Your task to perform on an android device: make emails show in primary in the gmail app Image 0: 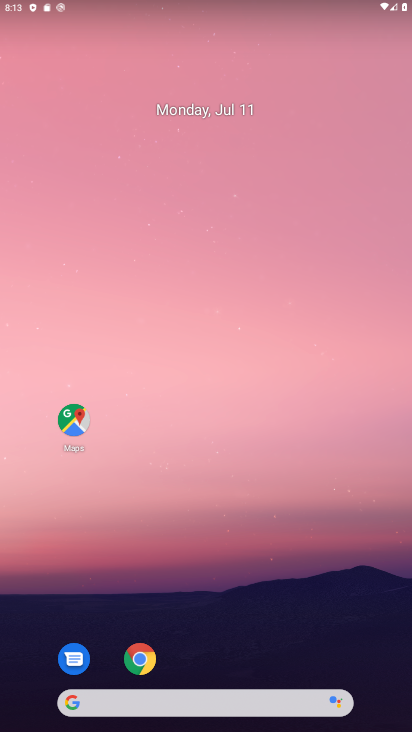
Step 0: drag from (201, 633) to (192, 257)
Your task to perform on an android device: make emails show in primary in the gmail app Image 1: 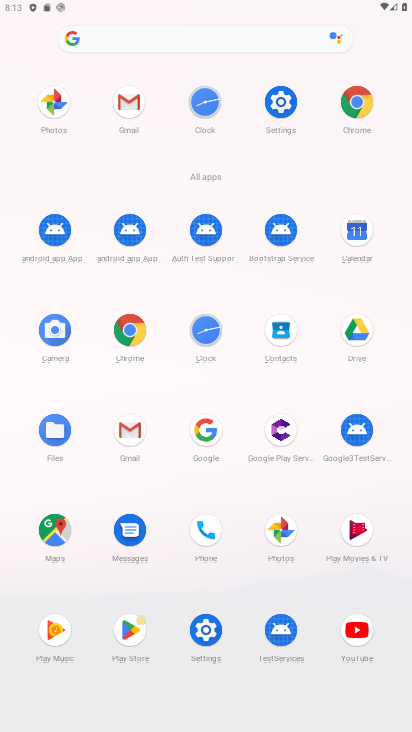
Step 1: click (127, 117)
Your task to perform on an android device: make emails show in primary in the gmail app Image 2: 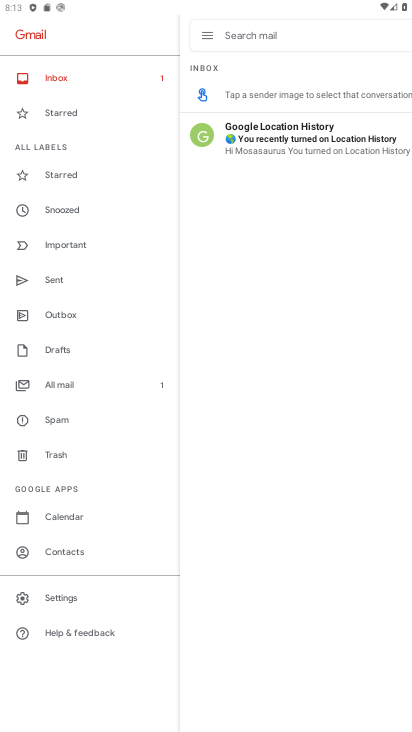
Step 2: click (75, 603)
Your task to perform on an android device: make emails show in primary in the gmail app Image 3: 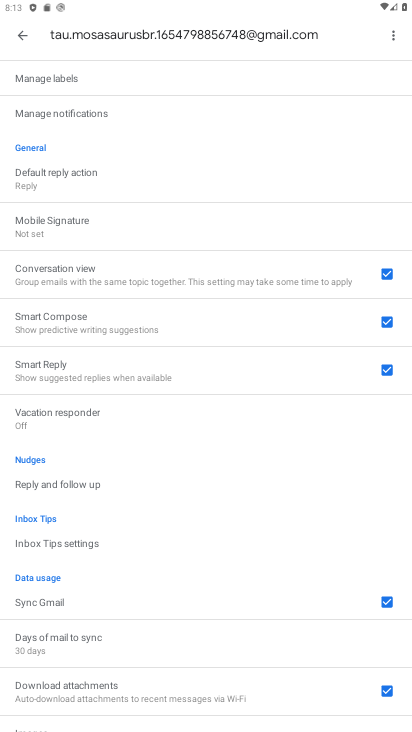
Step 3: drag from (150, 277) to (156, 516)
Your task to perform on an android device: make emails show in primary in the gmail app Image 4: 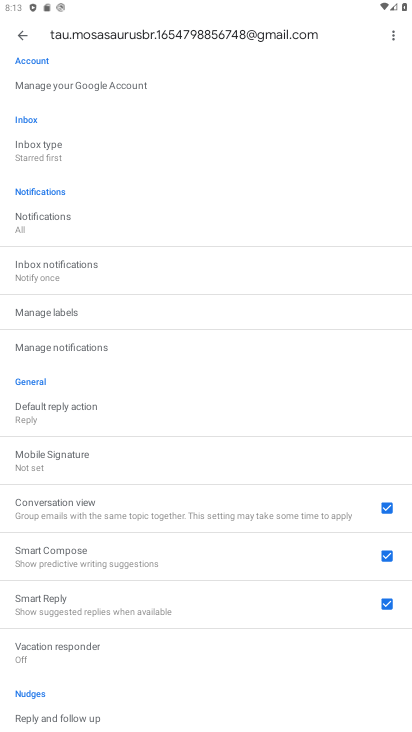
Step 4: drag from (102, 200) to (118, 448)
Your task to perform on an android device: make emails show in primary in the gmail app Image 5: 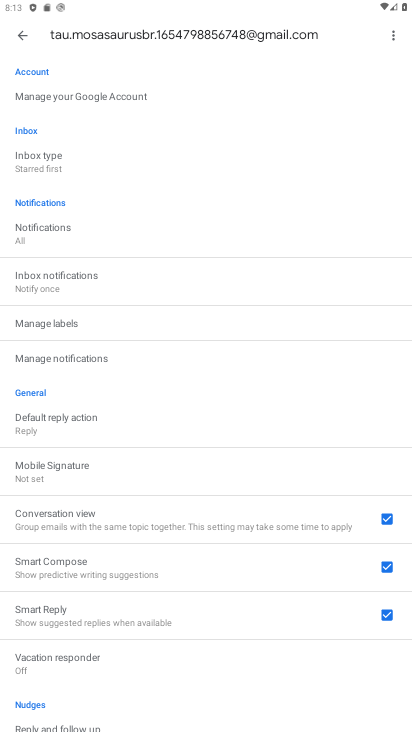
Step 5: click (99, 163)
Your task to perform on an android device: make emails show in primary in the gmail app Image 6: 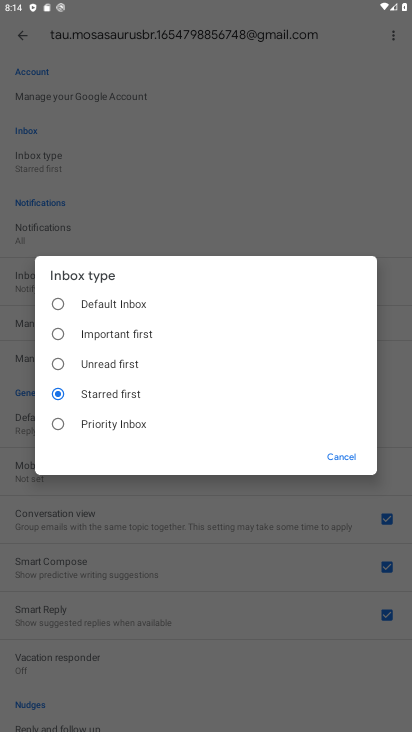
Step 6: click (102, 309)
Your task to perform on an android device: make emails show in primary in the gmail app Image 7: 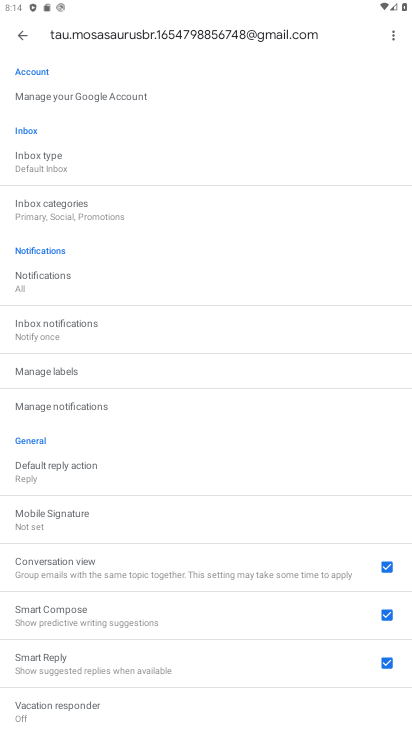
Step 7: task complete